Your task to perform on an android device: toggle translation in the chrome app Image 0: 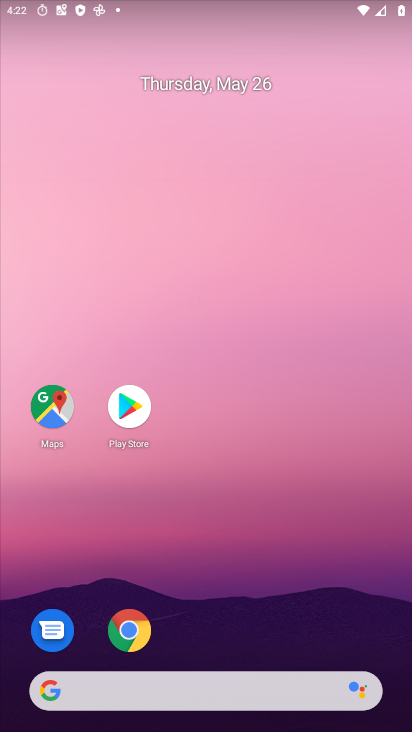
Step 0: drag from (241, 622) to (237, 215)
Your task to perform on an android device: toggle translation in the chrome app Image 1: 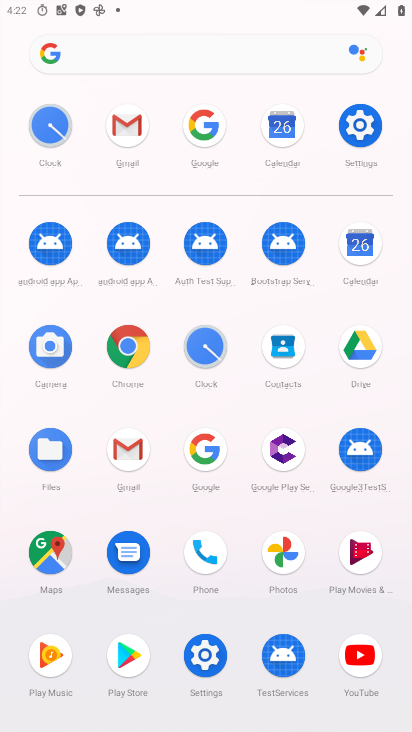
Step 1: click (131, 345)
Your task to perform on an android device: toggle translation in the chrome app Image 2: 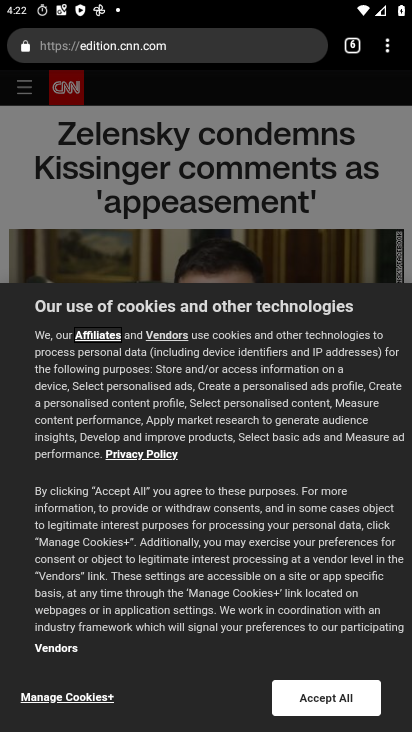
Step 2: click (389, 48)
Your task to perform on an android device: toggle translation in the chrome app Image 3: 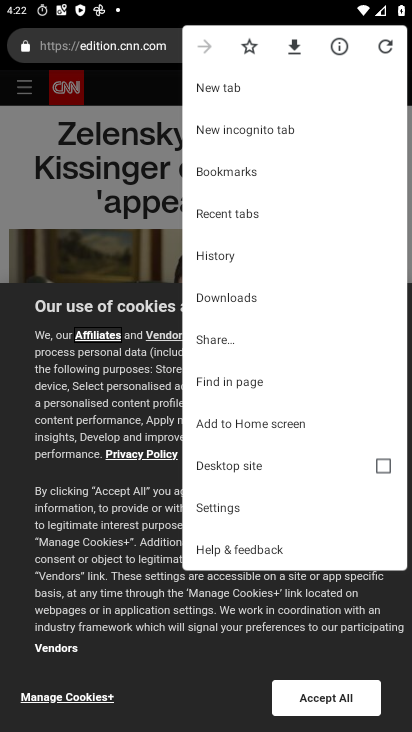
Step 3: click (227, 505)
Your task to perform on an android device: toggle translation in the chrome app Image 4: 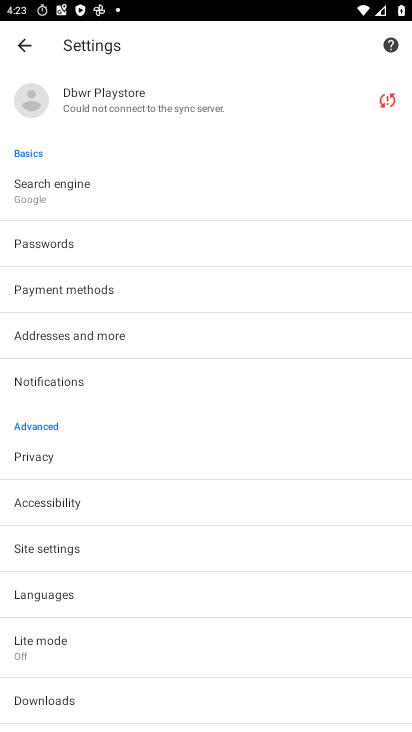
Step 4: click (72, 593)
Your task to perform on an android device: toggle translation in the chrome app Image 5: 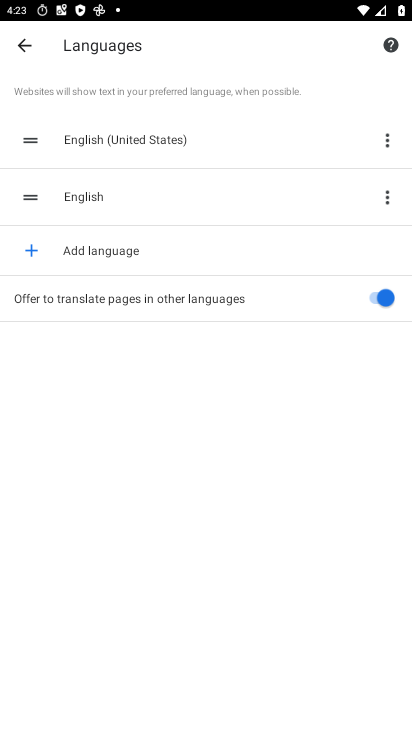
Step 5: click (375, 296)
Your task to perform on an android device: toggle translation in the chrome app Image 6: 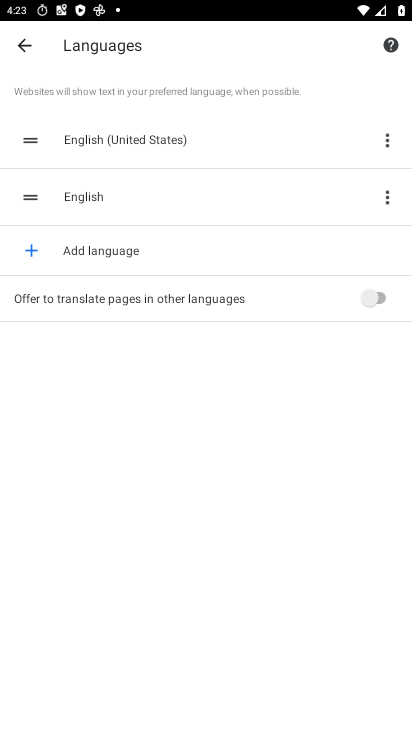
Step 6: task complete